Your task to perform on an android device: Go to eBay Image 0: 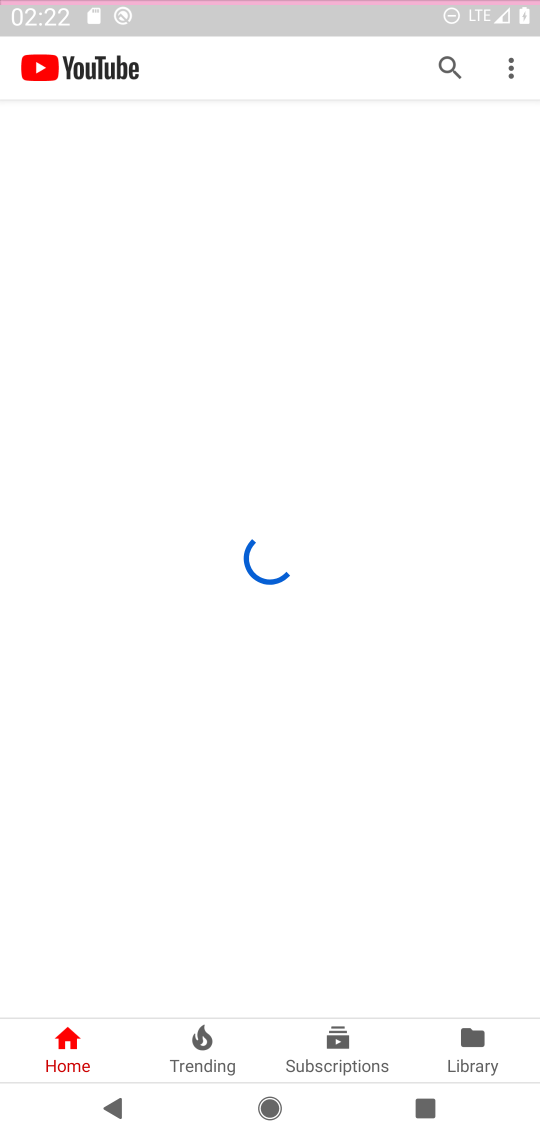
Step 0: press home button
Your task to perform on an android device: Go to eBay Image 1: 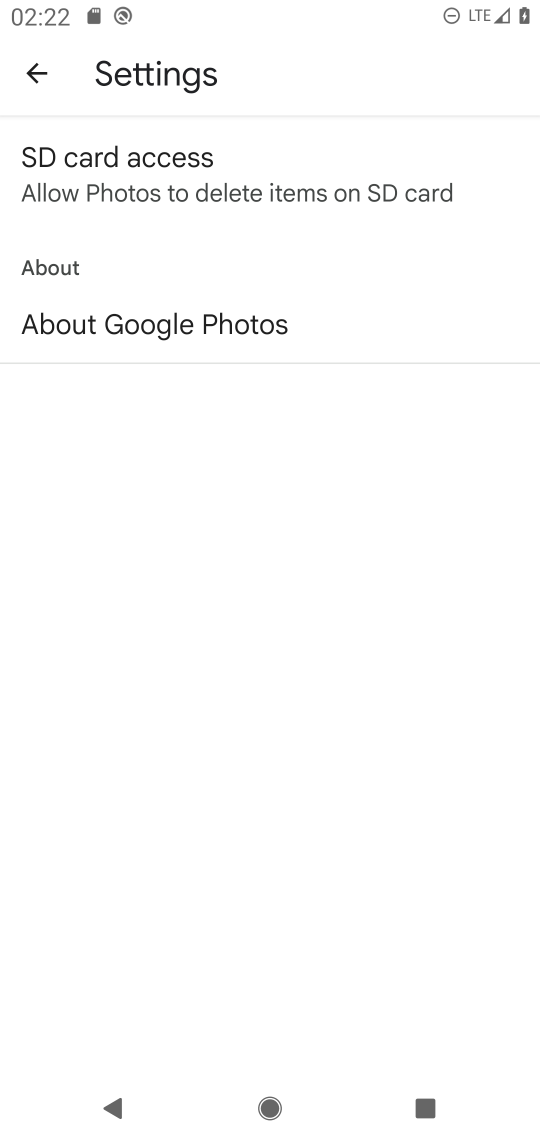
Step 1: press home button
Your task to perform on an android device: Go to eBay Image 2: 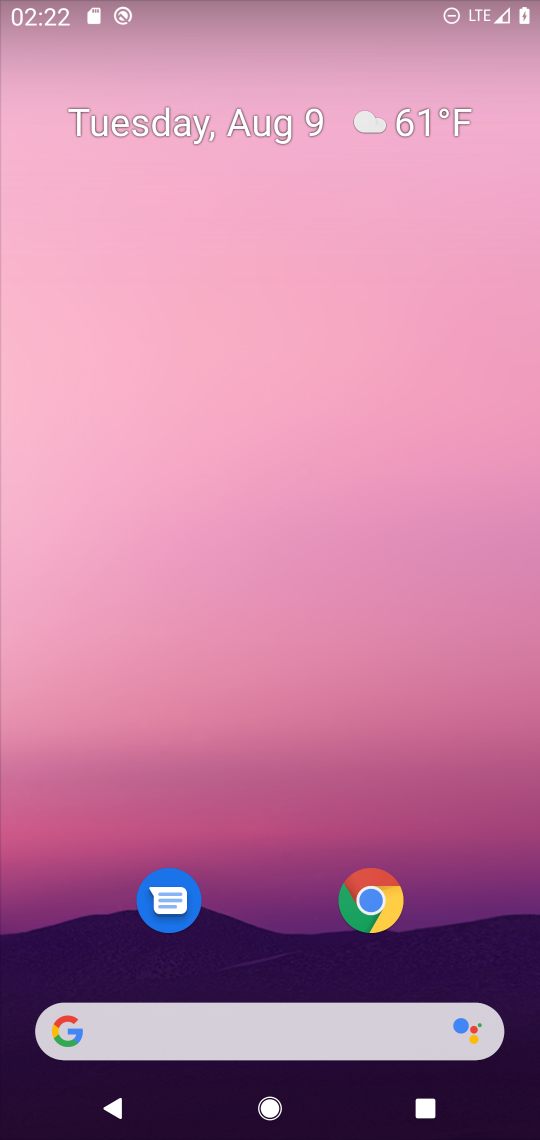
Step 2: drag from (459, 915) to (457, 268)
Your task to perform on an android device: Go to eBay Image 3: 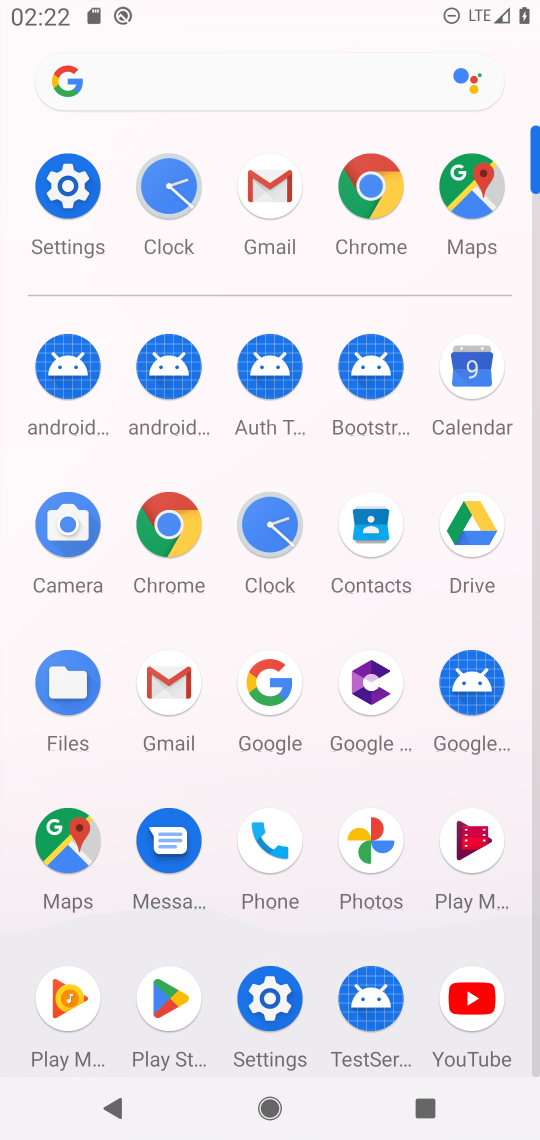
Step 3: click (176, 518)
Your task to perform on an android device: Go to eBay Image 4: 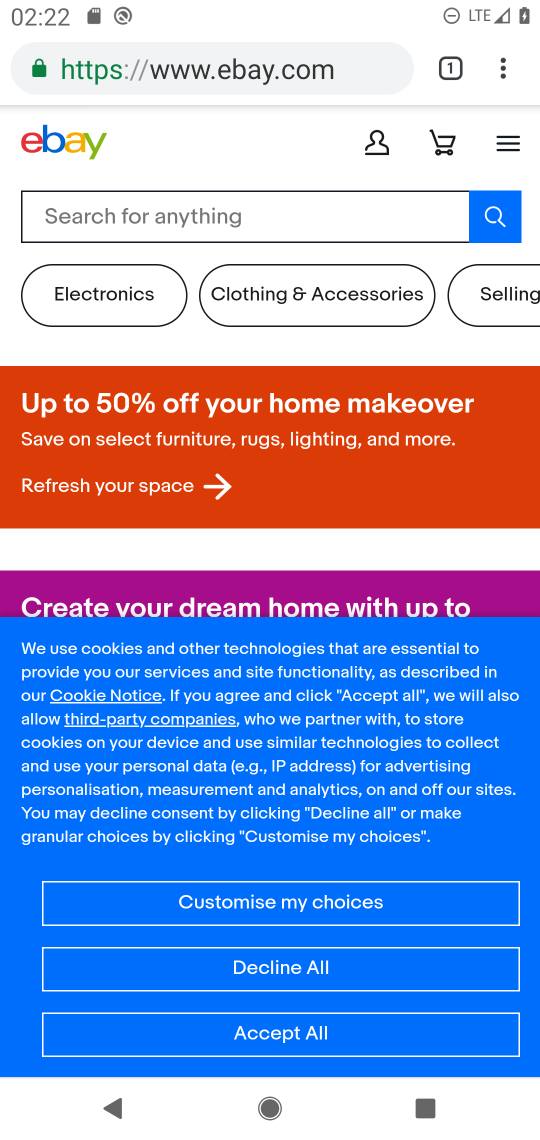
Step 4: task complete